Your task to perform on an android device: find snoozed emails in the gmail app Image 0: 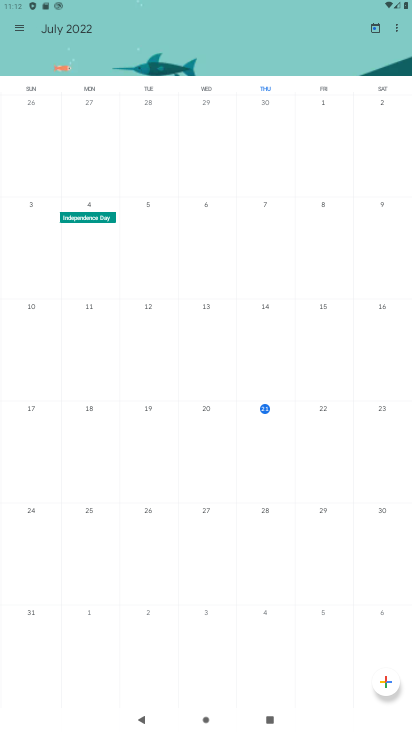
Step 0: press home button
Your task to perform on an android device: find snoozed emails in the gmail app Image 1: 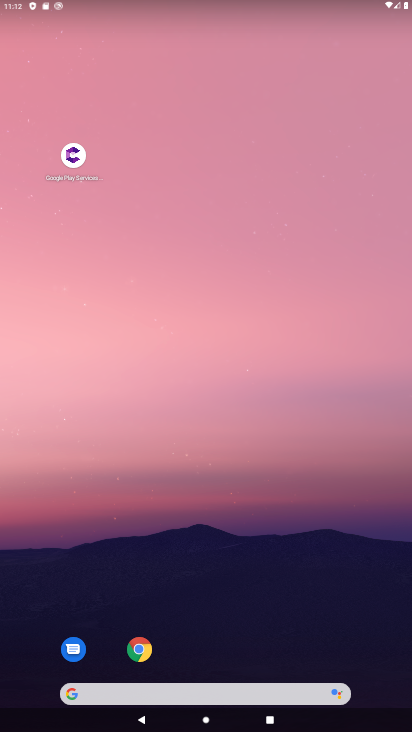
Step 1: drag from (182, 610) to (254, 112)
Your task to perform on an android device: find snoozed emails in the gmail app Image 2: 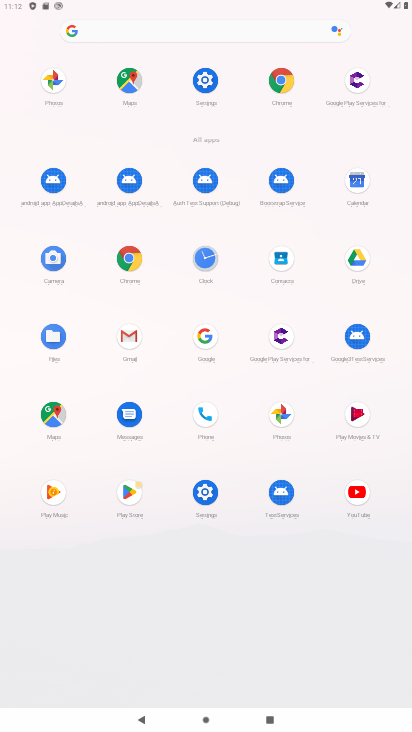
Step 2: click (132, 326)
Your task to perform on an android device: find snoozed emails in the gmail app Image 3: 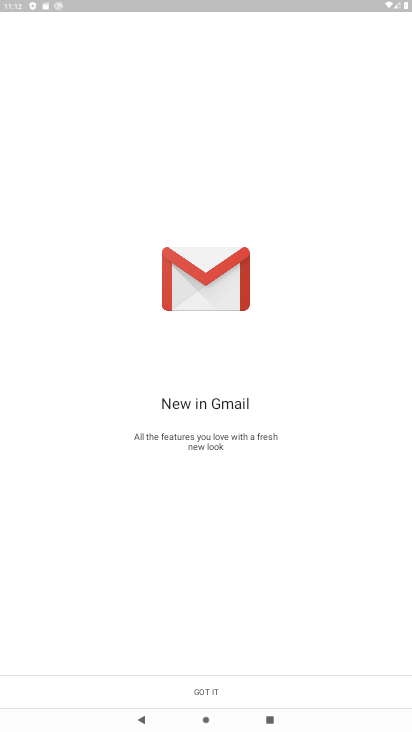
Step 3: click (180, 688)
Your task to perform on an android device: find snoozed emails in the gmail app Image 4: 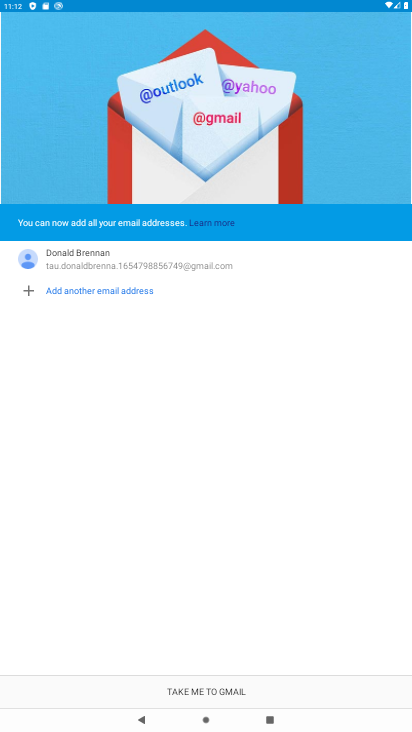
Step 4: click (180, 688)
Your task to perform on an android device: find snoozed emails in the gmail app Image 5: 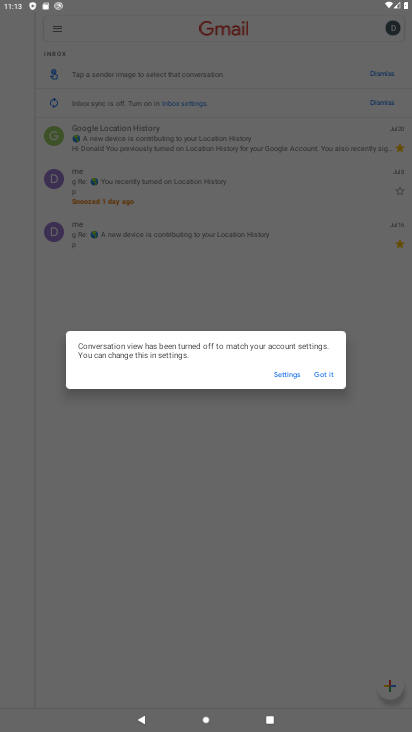
Step 5: click (310, 375)
Your task to perform on an android device: find snoozed emails in the gmail app Image 6: 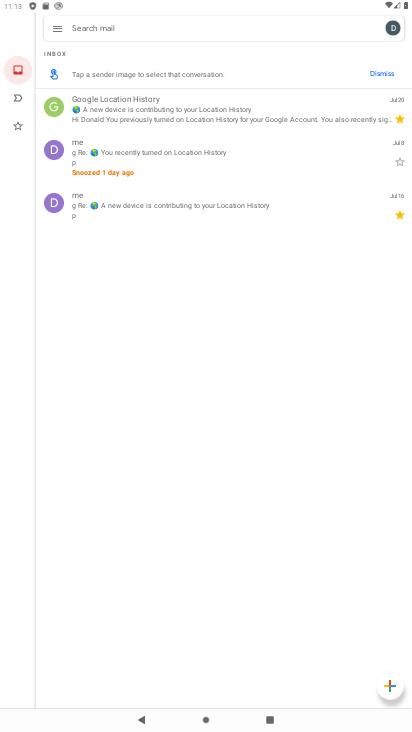
Step 6: click (54, 31)
Your task to perform on an android device: find snoozed emails in the gmail app Image 7: 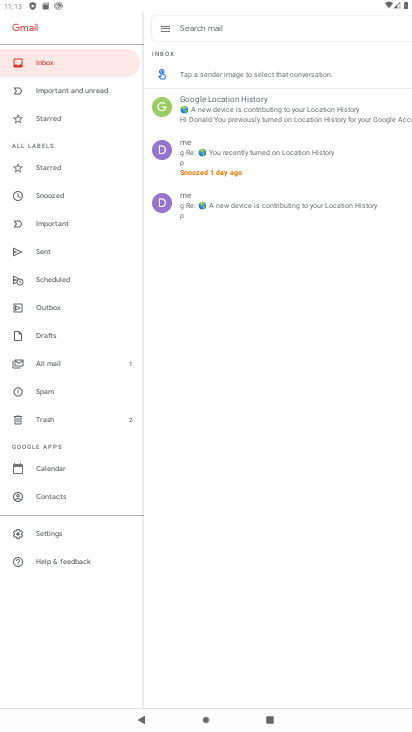
Step 7: click (58, 186)
Your task to perform on an android device: find snoozed emails in the gmail app Image 8: 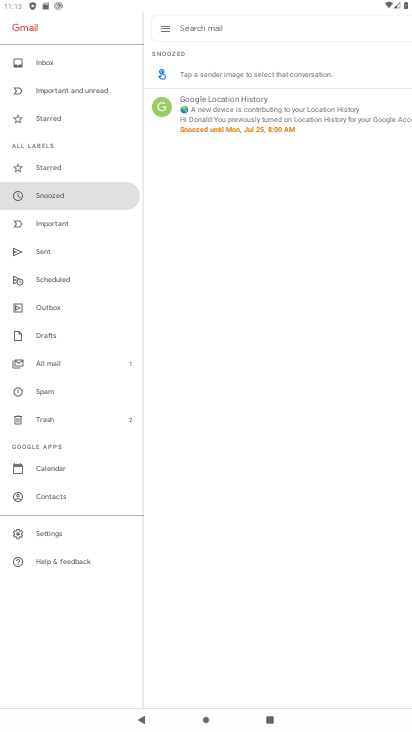
Step 8: task complete